Your task to perform on an android device: See recent photos Image 0: 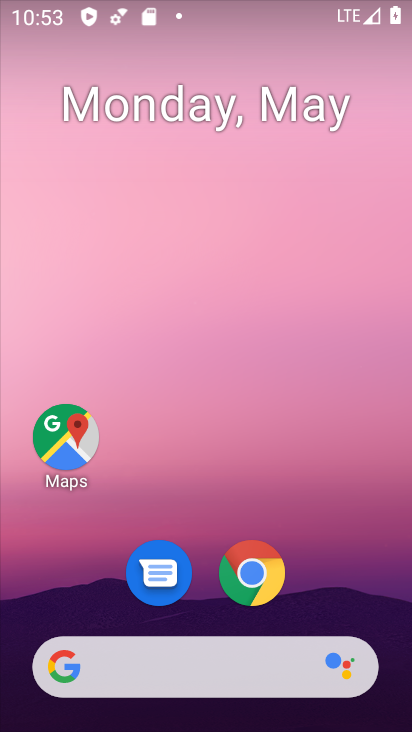
Step 0: drag from (190, 641) to (242, 173)
Your task to perform on an android device: See recent photos Image 1: 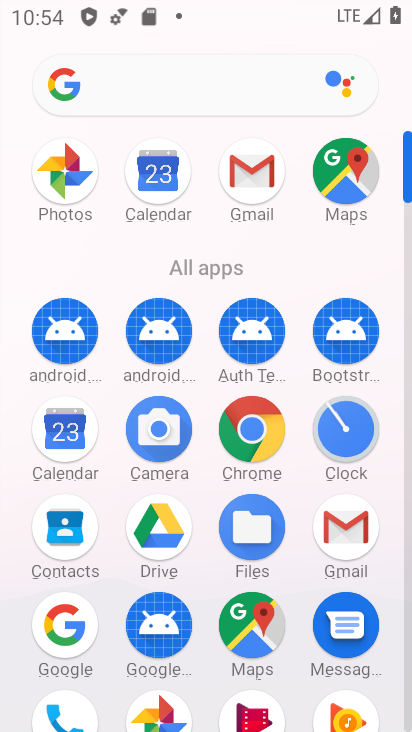
Step 1: click (63, 177)
Your task to perform on an android device: See recent photos Image 2: 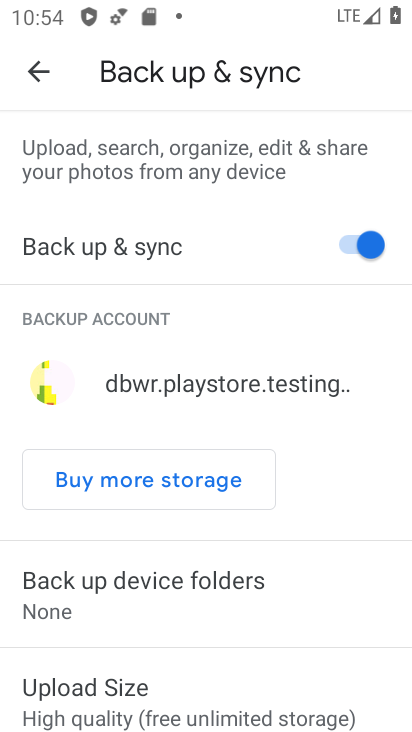
Step 2: click (38, 70)
Your task to perform on an android device: See recent photos Image 3: 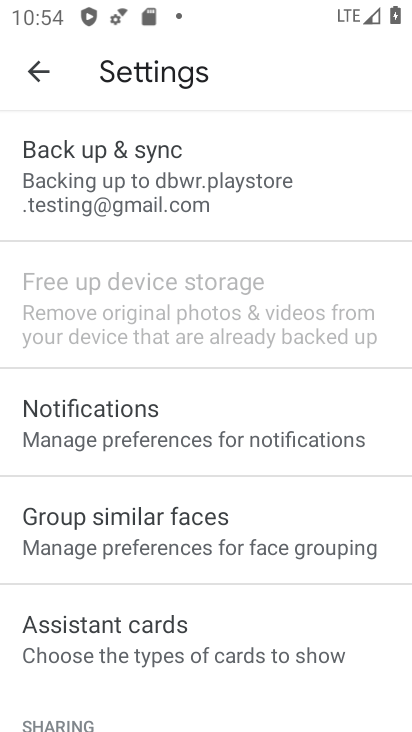
Step 3: click (40, 76)
Your task to perform on an android device: See recent photos Image 4: 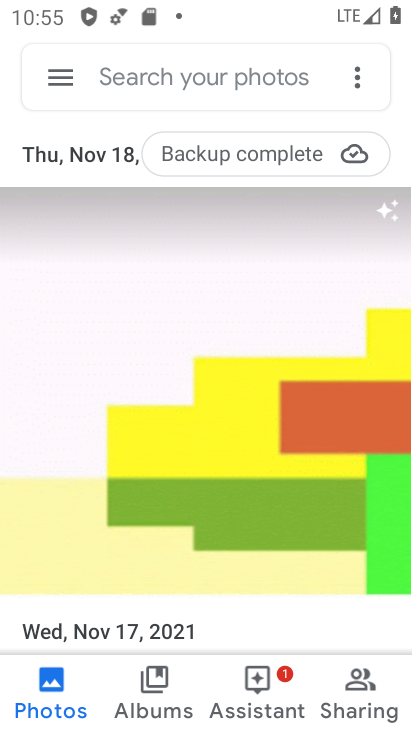
Step 4: task complete